Your task to perform on an android device: Open privacy settings Image 0: 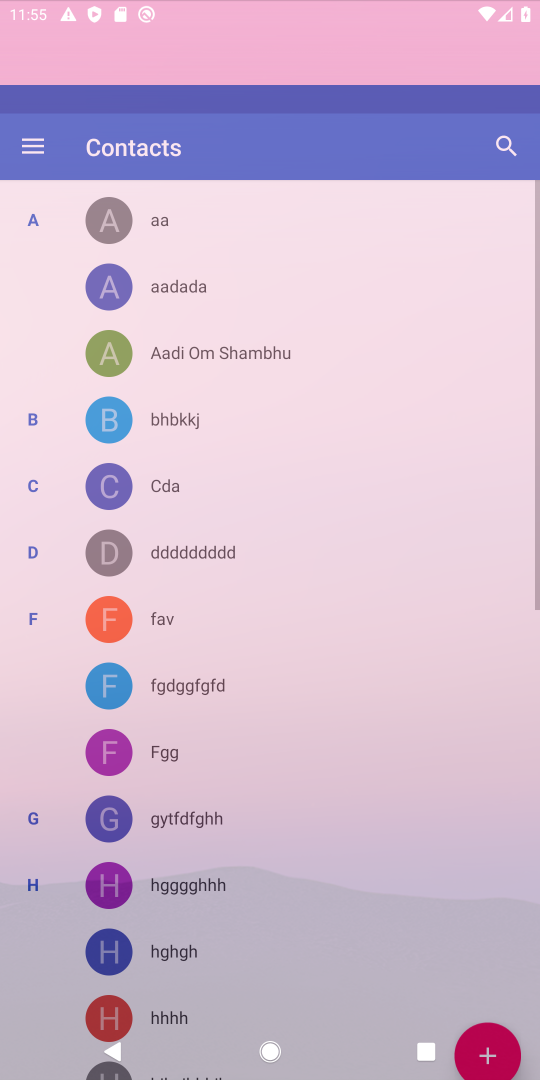
Step 0: press home button
Your task to perform on an android device: Open privacy settings Image 1: 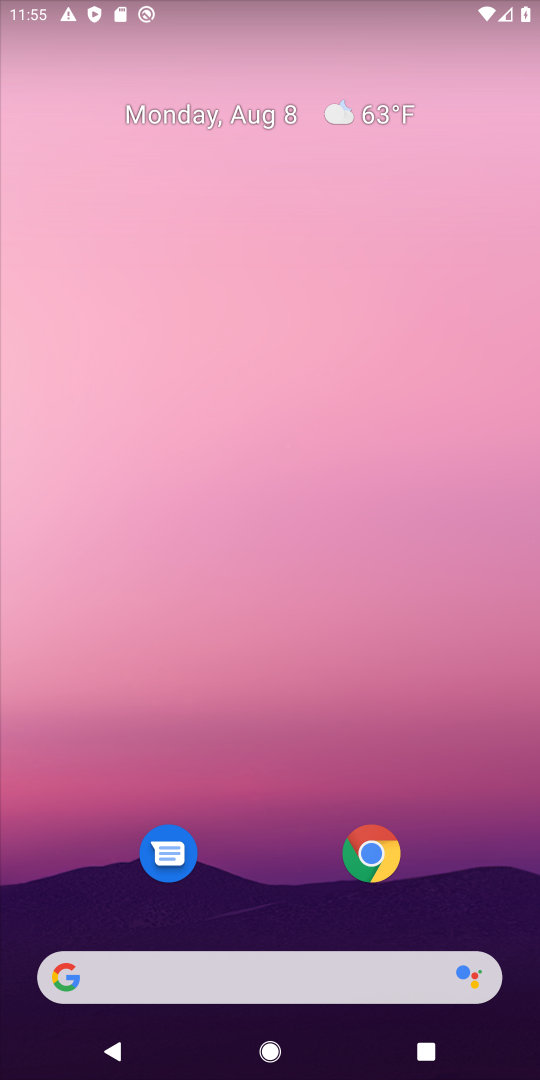
Step 1: drag from (281, 868) to (283, 314)
Your task to perform on an android device: Open privacy settings Image 2: 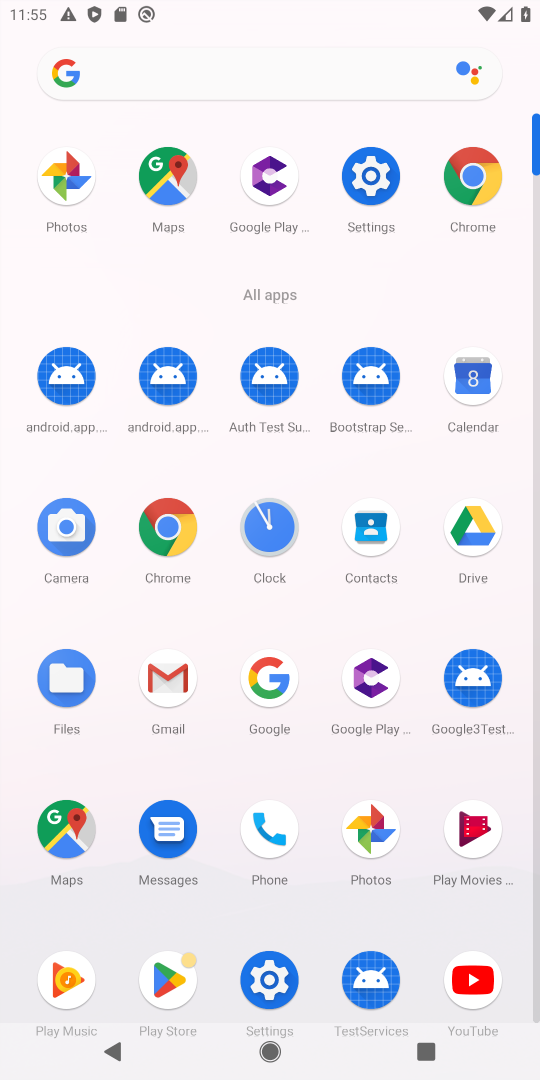
Step 2: click (359, 182)
Your task to perform on an android device: Open privacy settings Image 3: 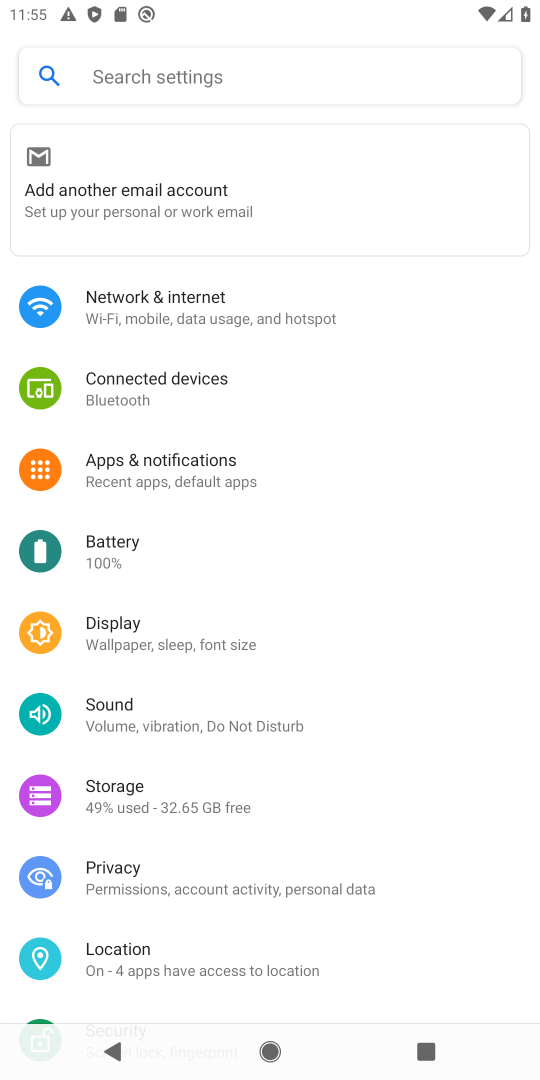
Step 3: click (190, 884)
Your task to perform on an android device: Open privacy settings Image 4: 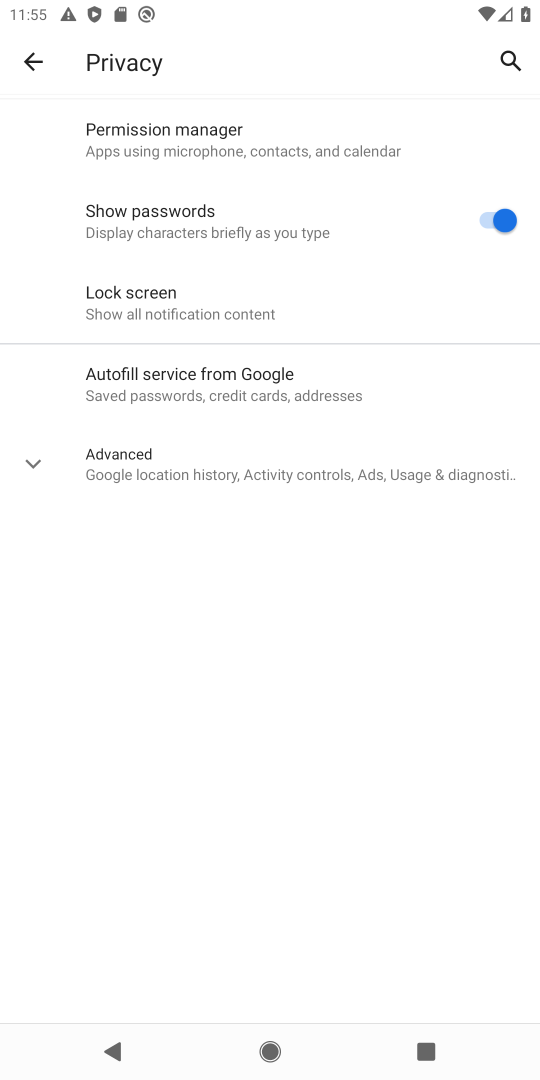
Step 4: task complete